Your task to perform on an android device: all mails in gmail Image 0: 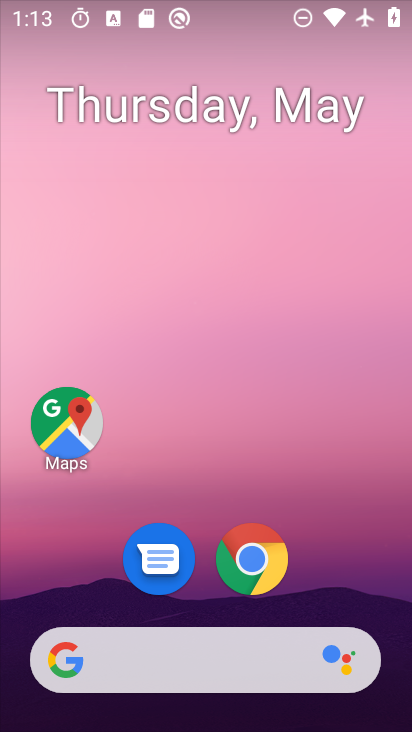
Step 0: drag from (313, 470) to (307, 265)
Your task to perform on an android device: all mails in gmail Image 1: 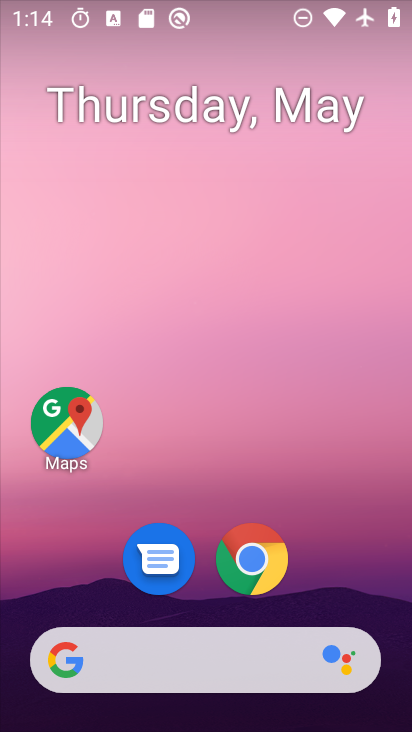
Step 1: drag from (97, 594) to (138, 421)
Your task to perform on an android device: all mails in gmail Image 2: 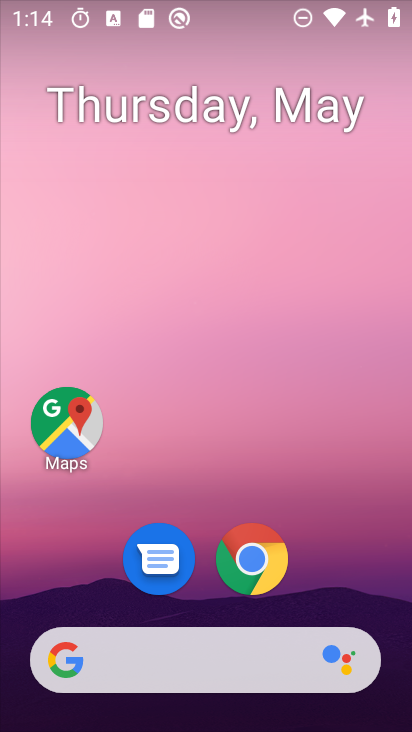
Step 2: drag from (119, 643) to (164, 325)
Your task to perform on an android device: all mails in gmail Image 3: 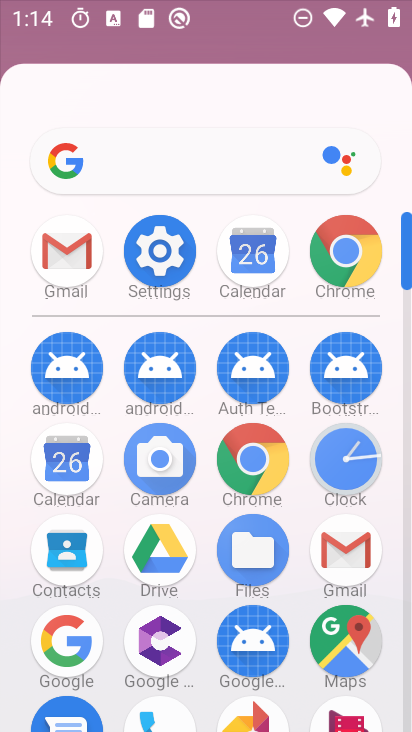
Step 3: drag from (231, 570) to (264, 302)
Your task to perform on an android device: all mails in gmail Image 4: 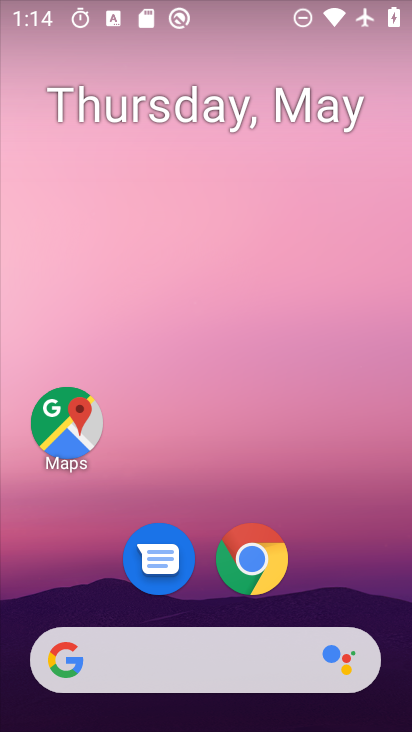
Step 4: drag from (335, 601) to (337, 183)
Your task to perform on an android device: all mails in gmail Image 5: 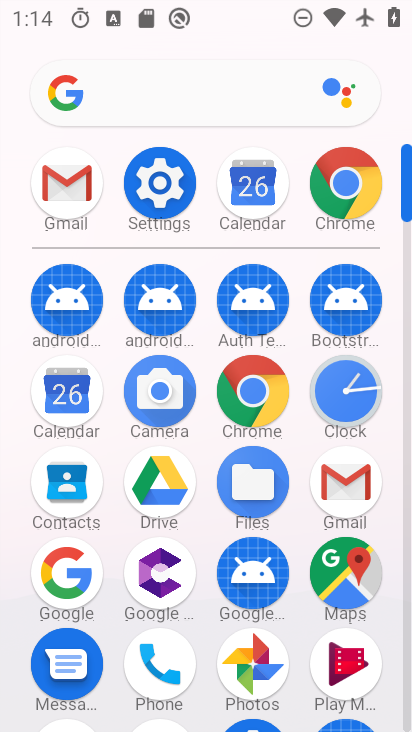
Step 5: click (349, 477)
Your task to perform on an android device: all mails in gmail Image 6: 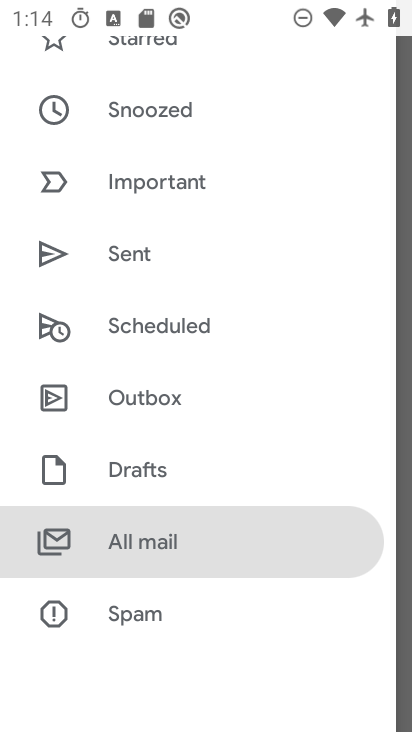
Step 6: click (297, 556)
Your task to perform on an android device: all mails in gmail Image 7: 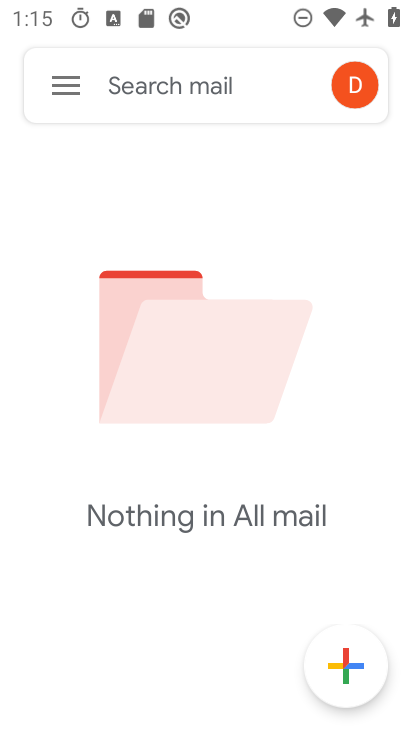
Step 7: task complete